Your task to perform on an android device: turn off improve location accuracy Image 0: 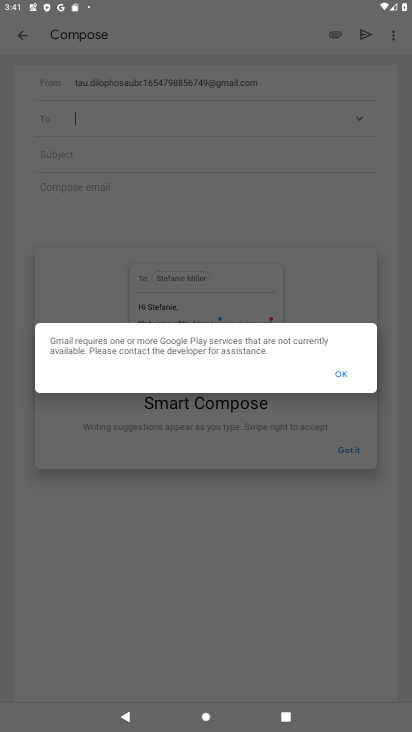
Step 0: press home button
Your task to perform on an android device: turn off improve location accuracy Image 1: 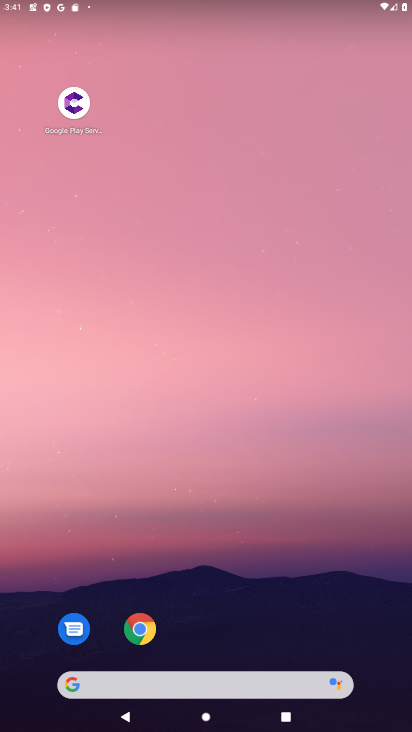
Step 1: drag from (186, 681) to (192, 241)
Your task to perform on an android device: turn off improve location accuracy Image 2: 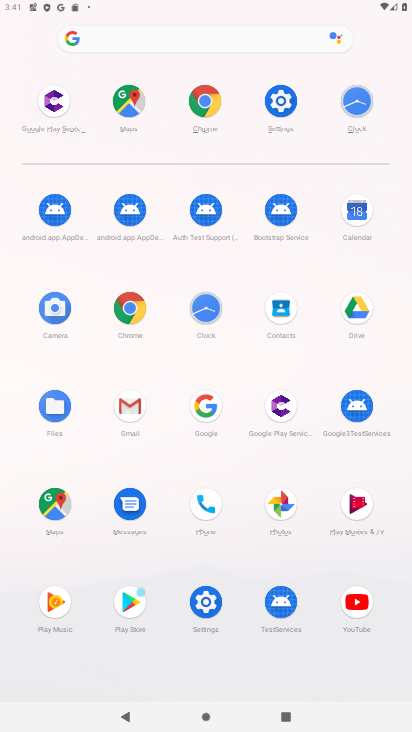
Step 2: click (283, 92)
Your task to perform on an android device: turn off improve location accuracy Image 3: 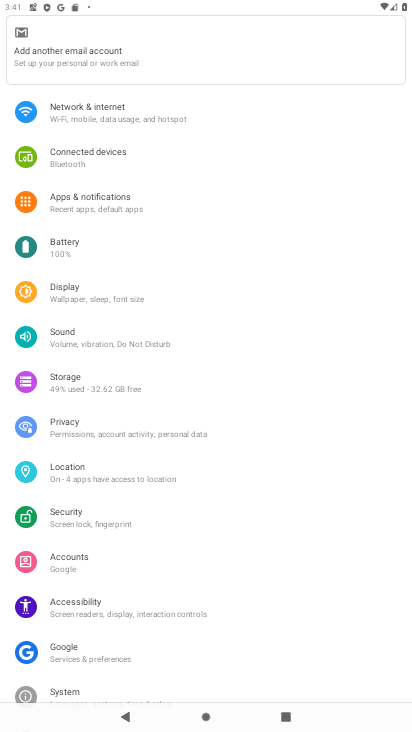
Step 3: click (76, 477)
Your task to perform on an android device: turn off improve location accuracy Image 4: 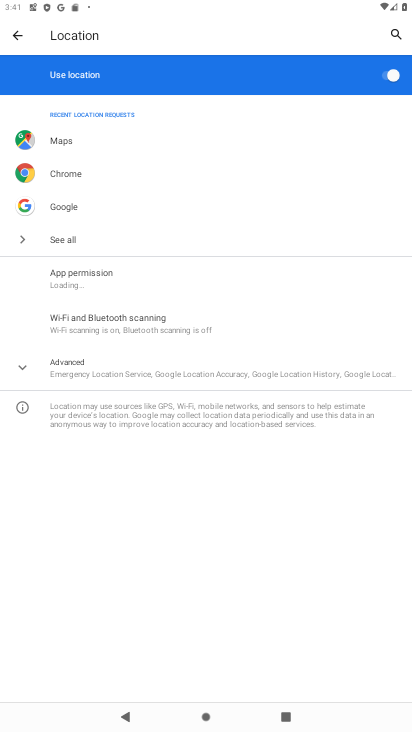
Step 4: click (75, 371)
Your task to perform on an android device: turn off improve location accuracy Image 5: 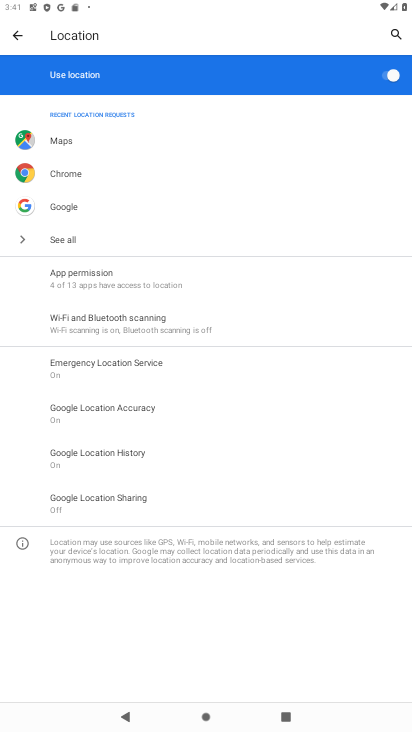
Step 5: click (107, 405)
Your task to perform on an android device: turn off improve location accuracy Image 6: 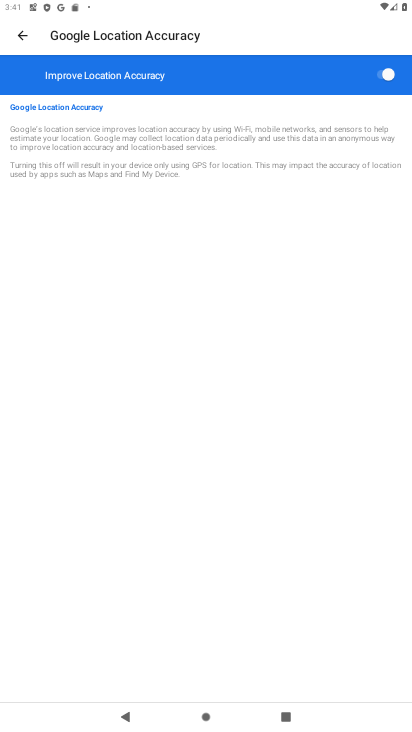
Step 6: click (381, 70)
Your task to perform on an android device: turn off improve location accuracy Image 7: 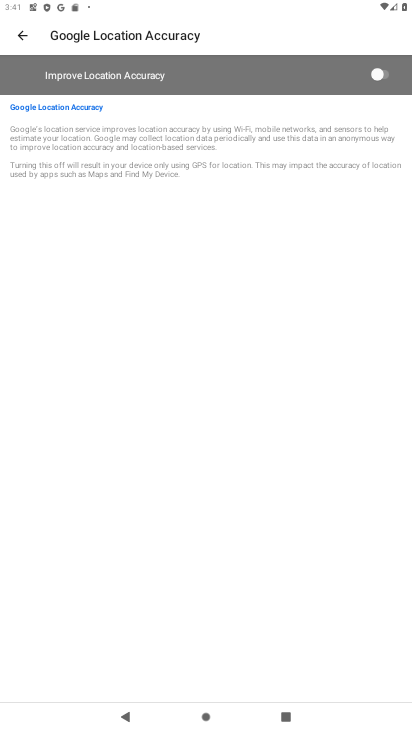
Step 7: task complete